Your task to perform on an android device: see tabs open on other devices in the chrome app Image 0: 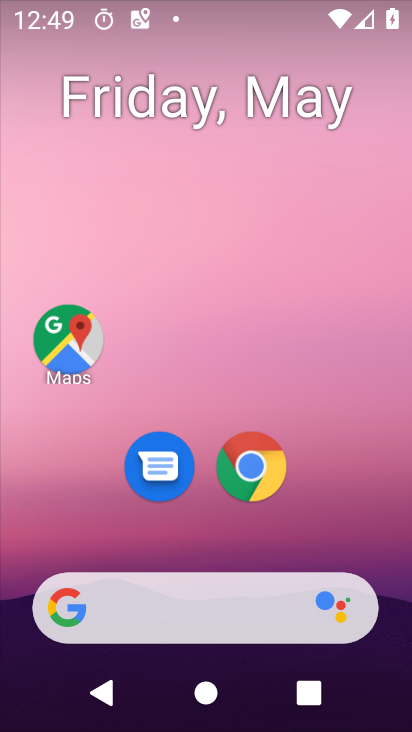
Step 0: drag from (401, 616) to (336, 193)
Your task to perform on an android device: see tabs open on other devices in the chrome app Image 1: 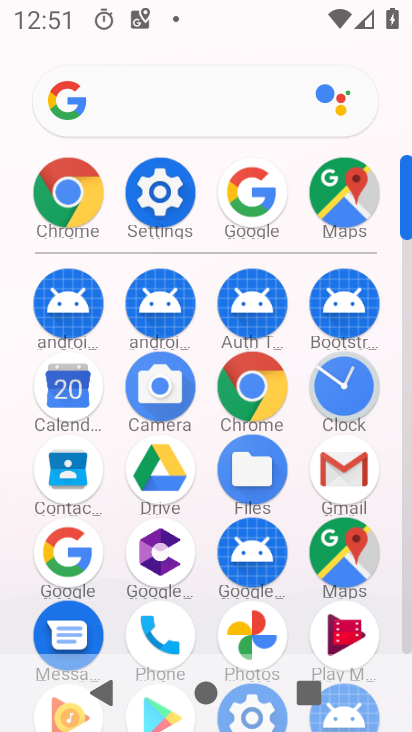
Step 1: click (255, 388)
Your task to perform on an android device: see tabs open on other devices in the chrome app Image 2: 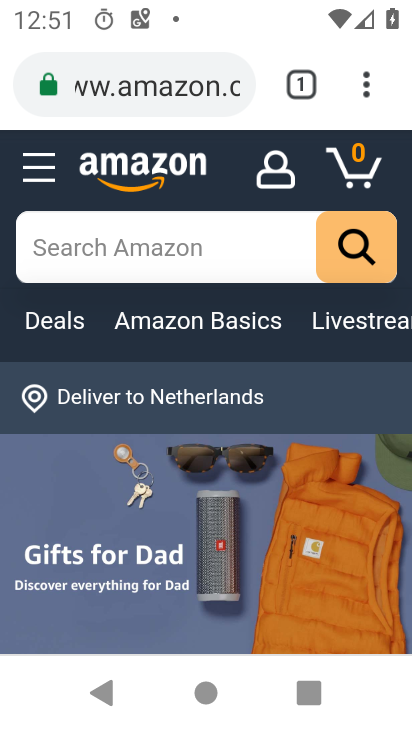
Step 2: task complete